Your task to perform on an android device: What's the weather? Image 0: 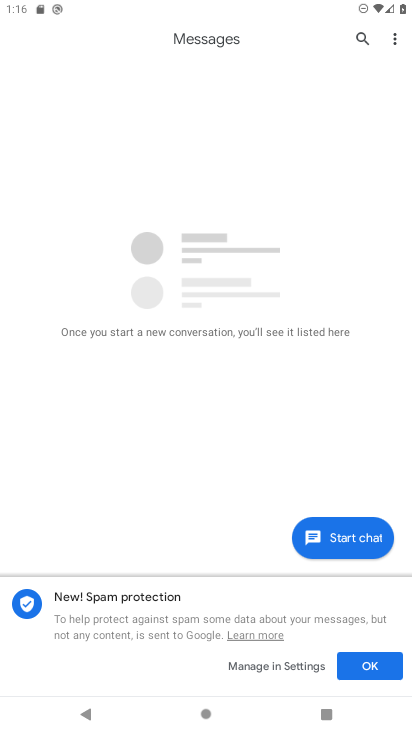
Step 0: press home button
Your task to perform on an android device: What's the weather? Image 1: 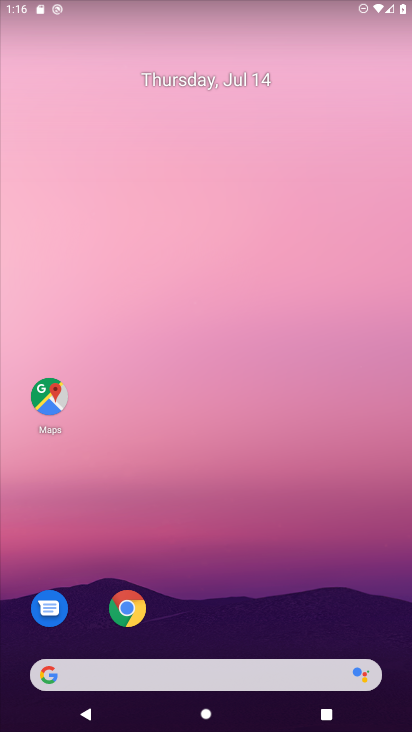
Step 1: drag from (246, 718) to (240, 64)
Your task to perform on an android device: What's the weather? Image 2: 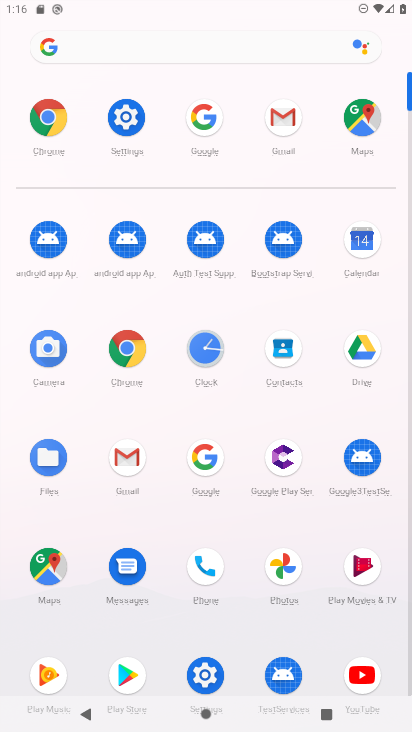
Step 2: click (203, 459)
Your task to perform on an android device: What's the weather? Image 3: 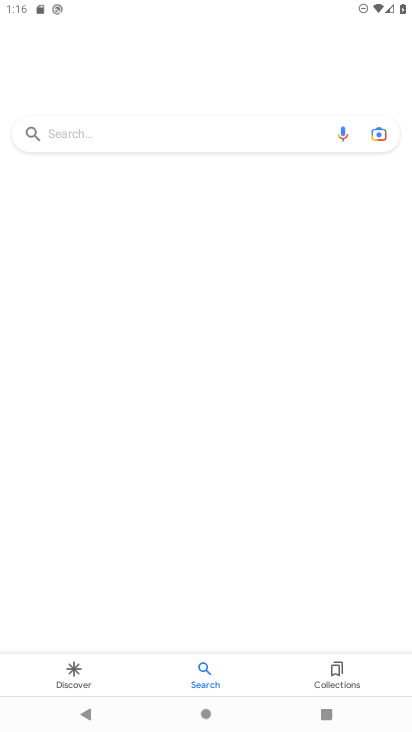
Step 3: click (230, 130)
Your task to perform on an android device: What's the weather? Image 4: 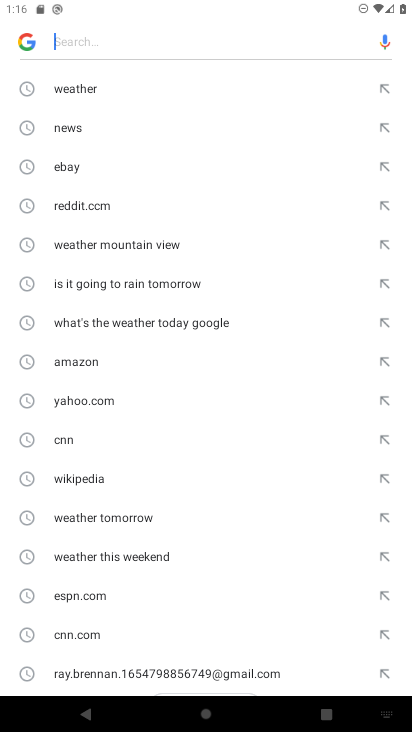
Step 4: click (65, 86)
Your task to perform on an android device: What's the weather? Image 5: 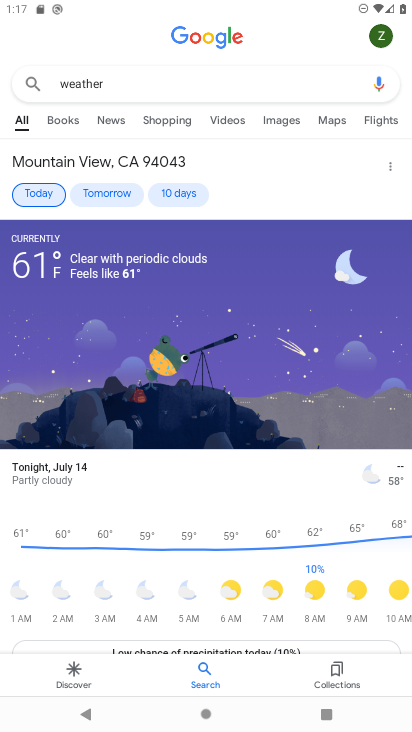
Step 5: task complete